Your task to perform on an android device: Go to Maps Image 0: 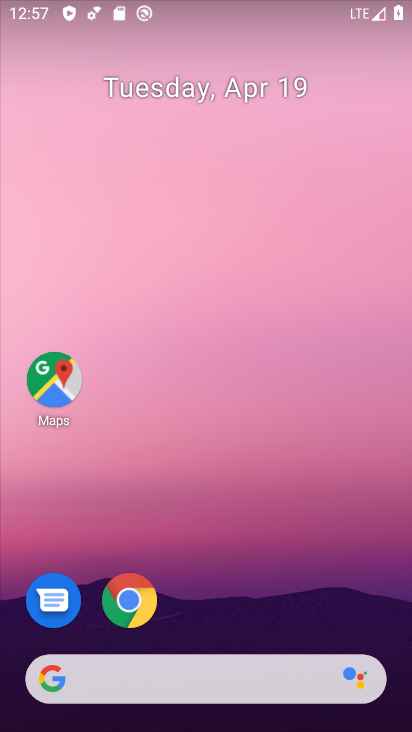
Step 0: drag from (230, 643) to (219, 3)
Your task to perform on an android device: Go to Maps Image 1: 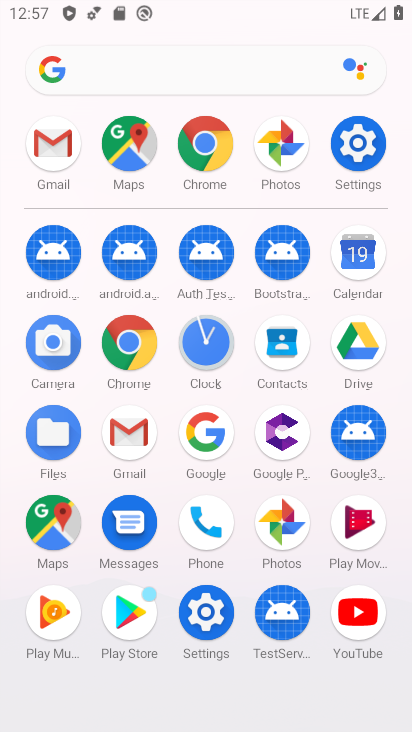
Step 1: click (36, 499)
Your task to perform on an android device: Go to Maps Image 2: 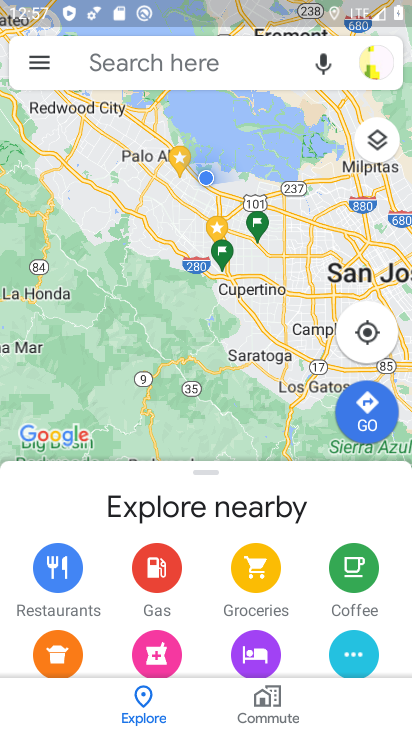
Step 2: task complete